Your task to perform on an android device: turn notification dots off Image 0: 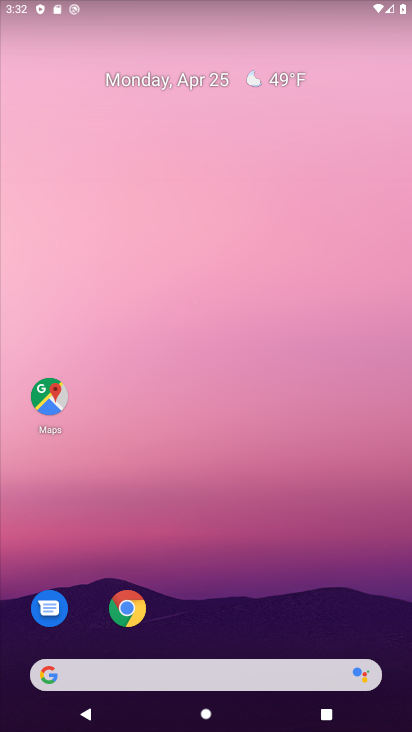
Step 0: drag from (203, 606) to (226, 160)
Your task to perform on an android device: turn notification dots off Image 1: 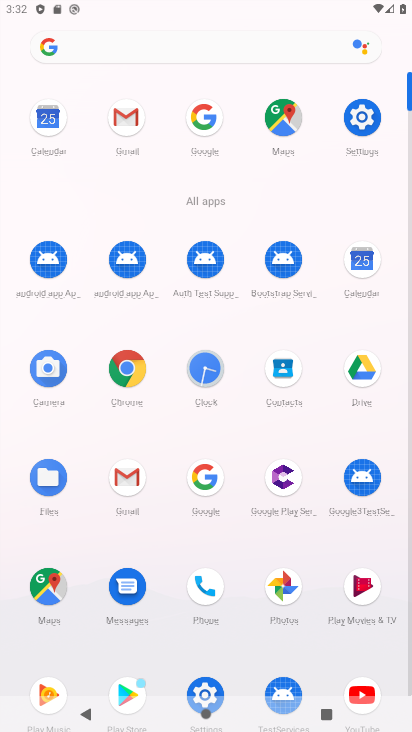
Step 1: click (370, 133)
Your task to perform on an android device: turn notification dots off Image 2: 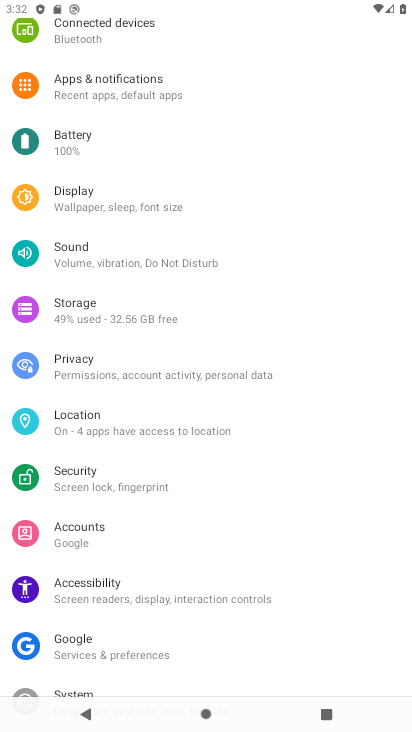
Step 2: click (171, 91)
Your task to perform on an android device: turn notification dots off Image 3: 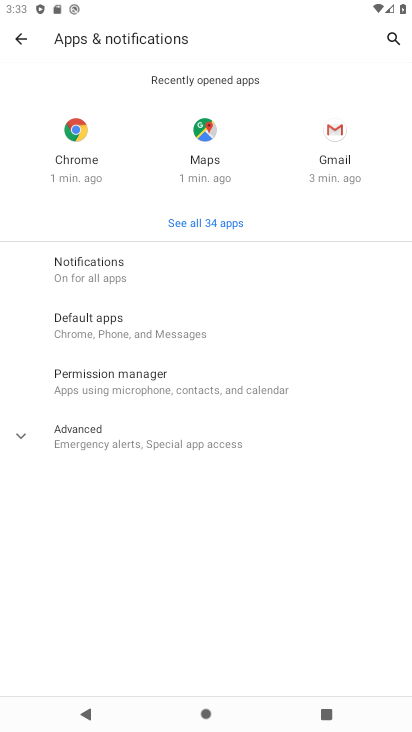
Step 3: click (232, 272)
Your task to perform on an android device: turn notification dots off Image 4: 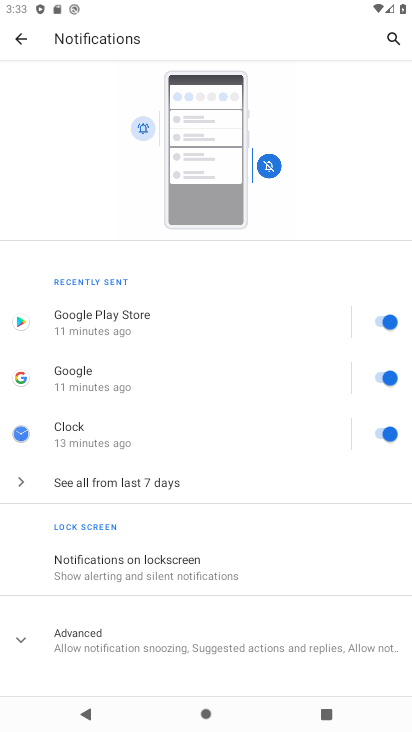
Step 4: drag from (196, 537) to (188, 248)
Your task to perform on an android device: turn notification dots off Image 5: 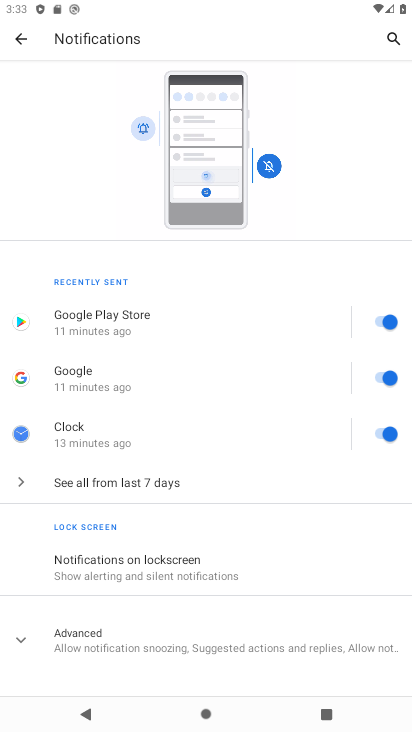
Step 5: click (188, 636)
Your task to perform on an android device: turn notification dots off Image 6: 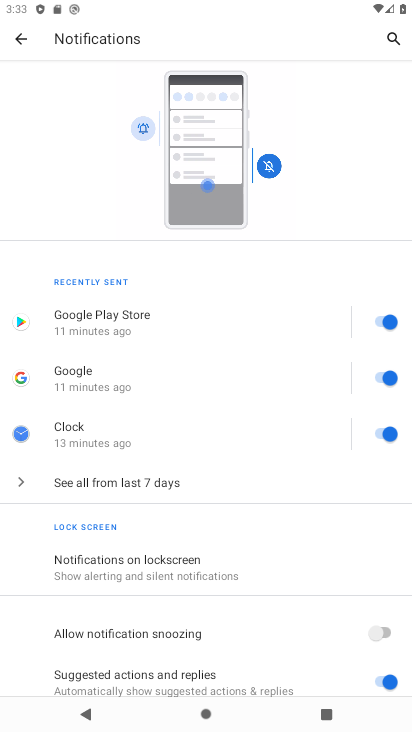
Step 6: drag from (196, 523) to (232, 142)
Your task to perform on an android device: turn notification dots off Image 7: 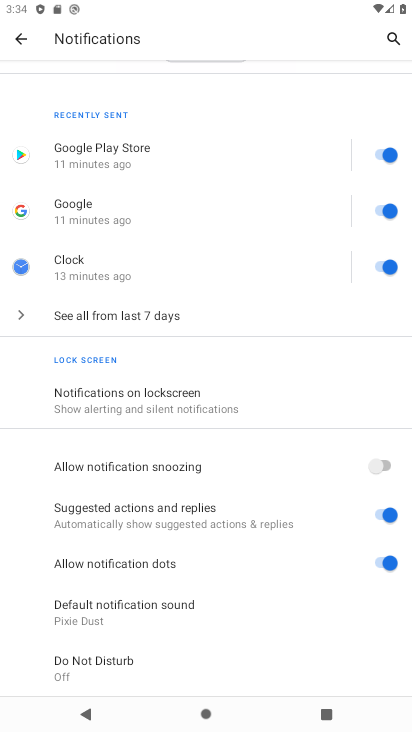
Step 7: drag from (196, 558) to (225, 317)
Your task to perform on an android device: turn notification dots off Image 8: 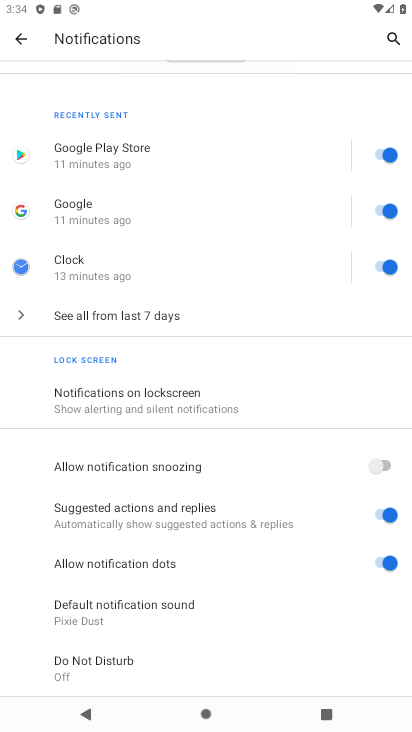
Step 8: click (380, 567)
Your task to perform on an android device: turn notification dots off Image 9: 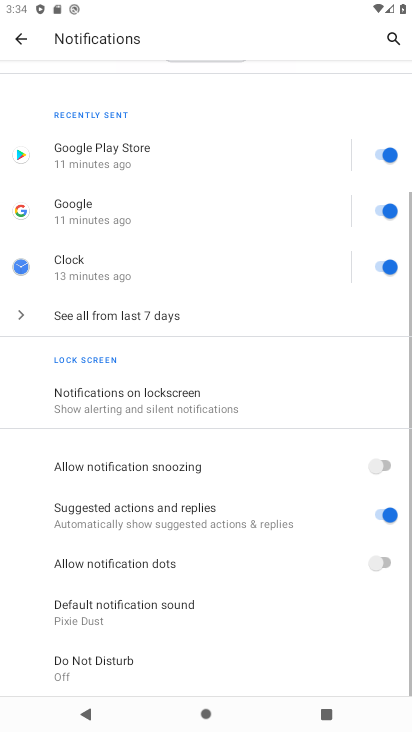
Step 9: task complete